Your task to perform on an android device: turn on bluetooth scan Image 0: 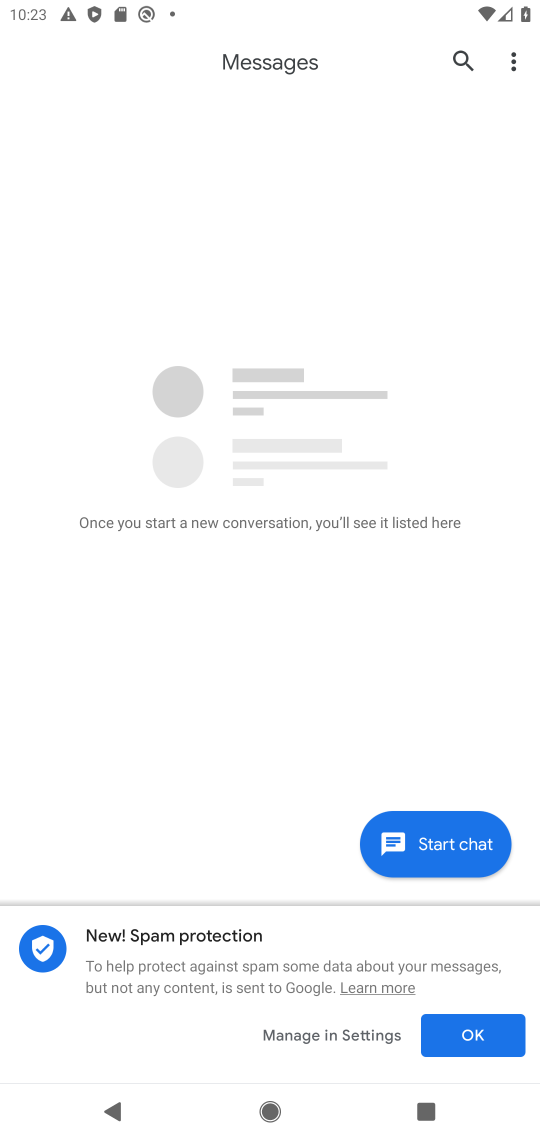
Step 0: press home button
Your task to perform on an android device: turn on bluetooth scan Image 1: 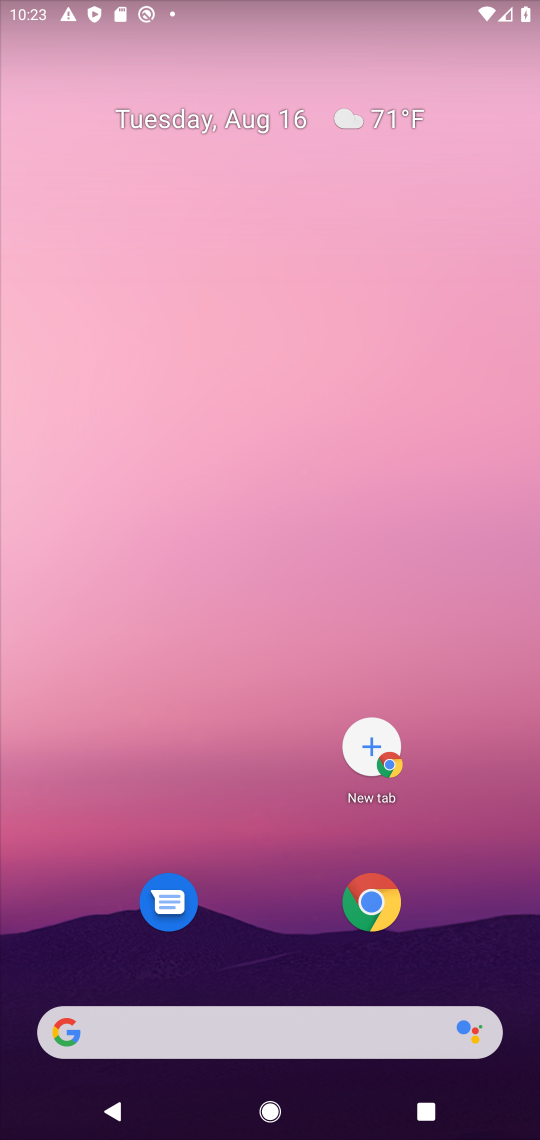
Step 1: drag from (160, 786) to (190, 358)
Your task to perform on an android device: turn on bluetooth scan Image 2: 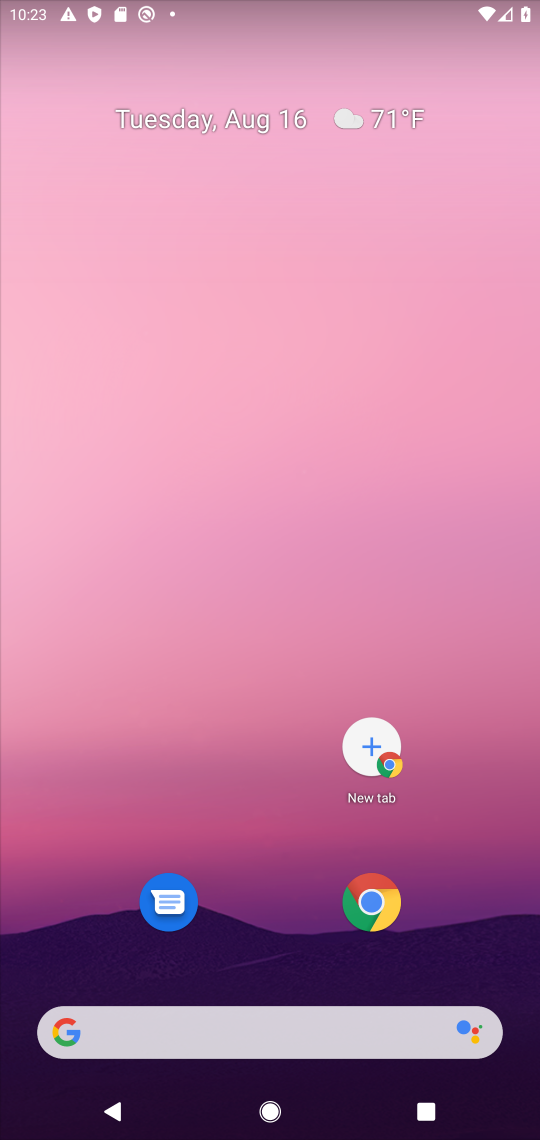
Step 2: drag from (241, 949) to (304, 397)
Your task to perform on an android device: turn on bluetooth scan Image 3: 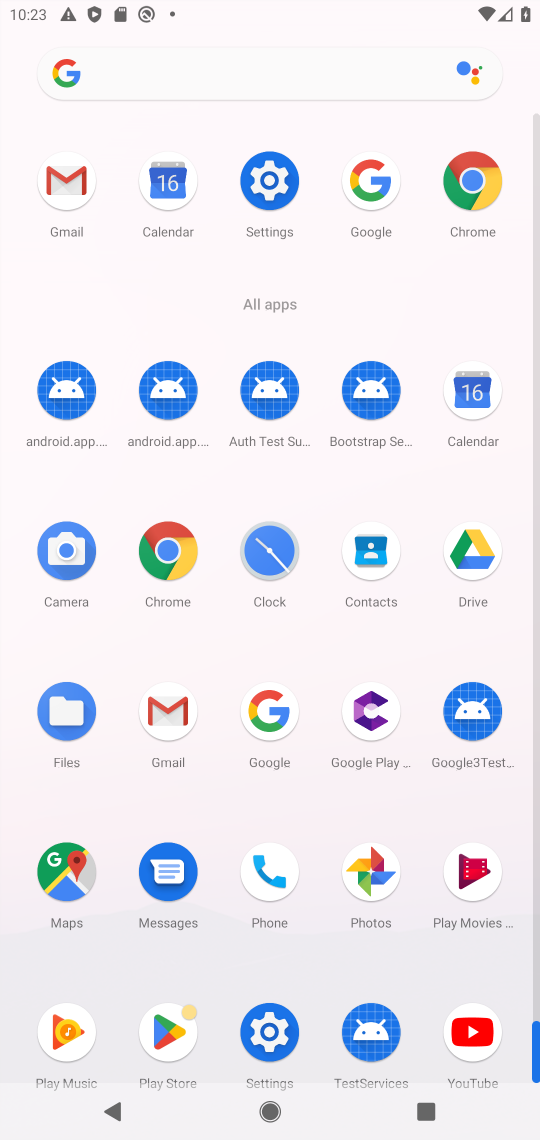
Step 3: click (277, 195)
Your task to perform on an android device: turn on bluetooth scan Image 4: 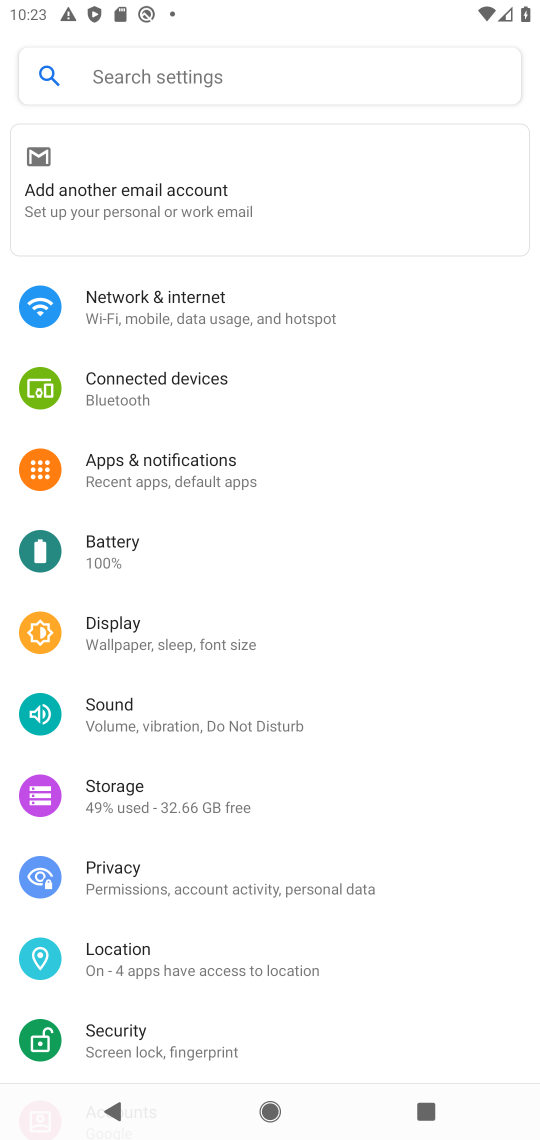
Step 4: click (109, 976)
Your task to perform on an android device: turn on bluetooth scan Image 5: 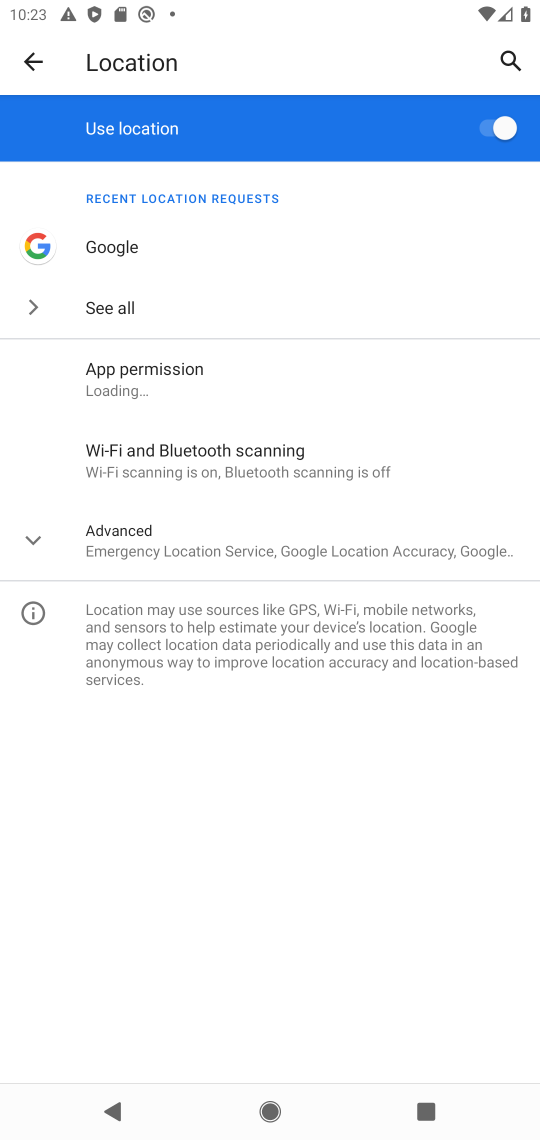
Step 5: click (127, 424)
Your task to perform on an android device: turn on bluetooth scan Image 6: 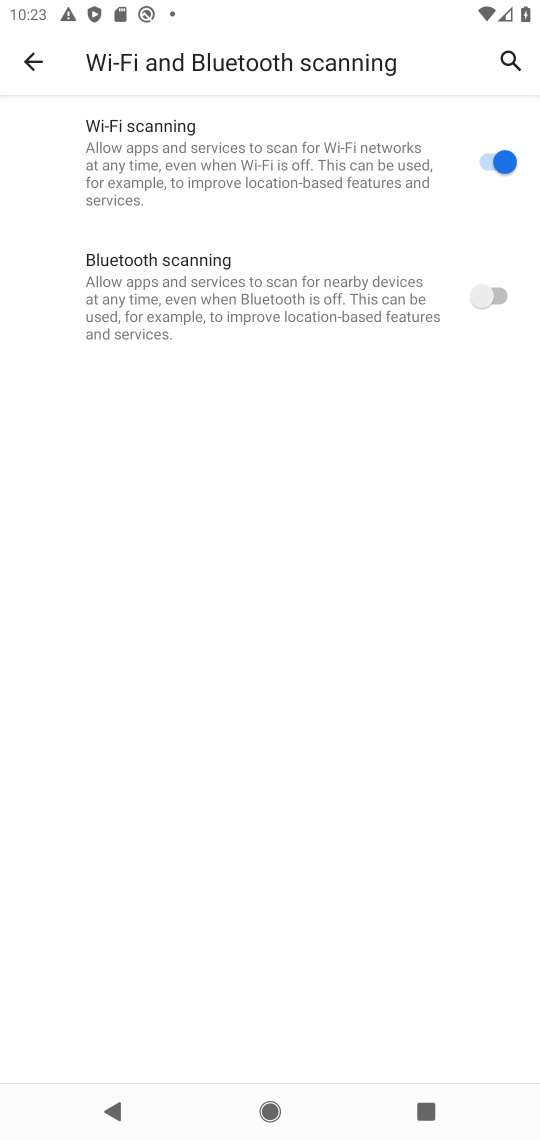
Step 6: click (489, 299)
Your task to perform on an android device: turn on bluetooth scan Image 7: 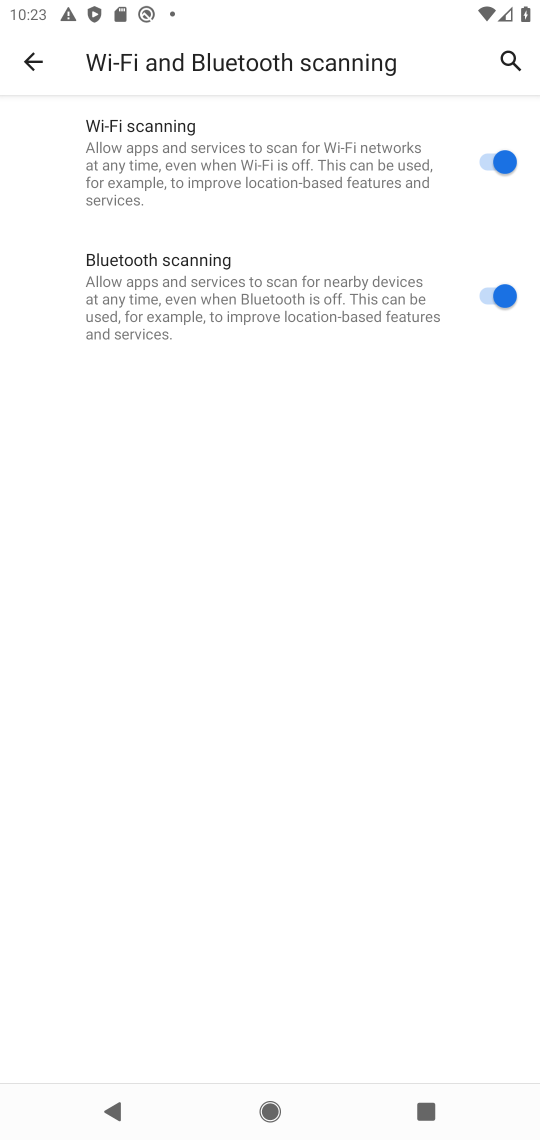
Step 7: task complete